Your task to perform on an android device: Open display settings Image 0: 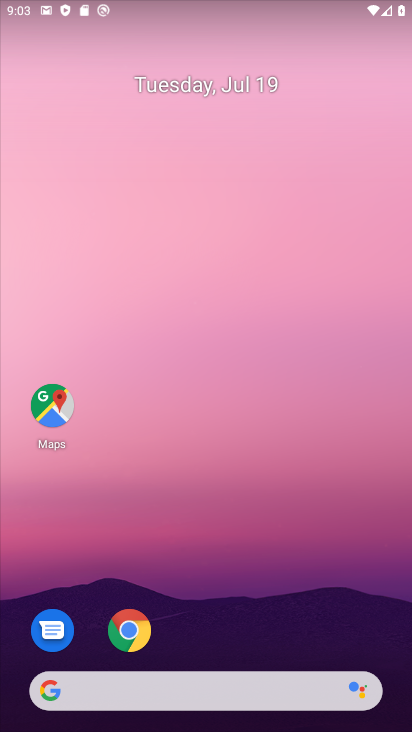
Step 0: drag from (105, 604) to (258, 125)
Your task to perform on an android device: Open display settings Image 1: 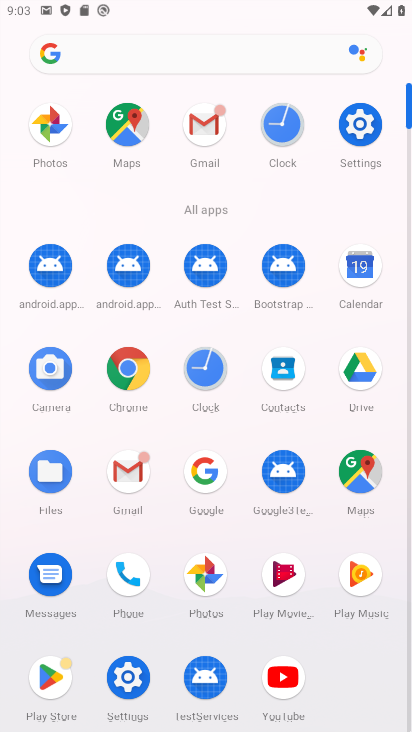
Step 1: click (122, 680)
Your task to perform on an android device: Open display settings Image 2: 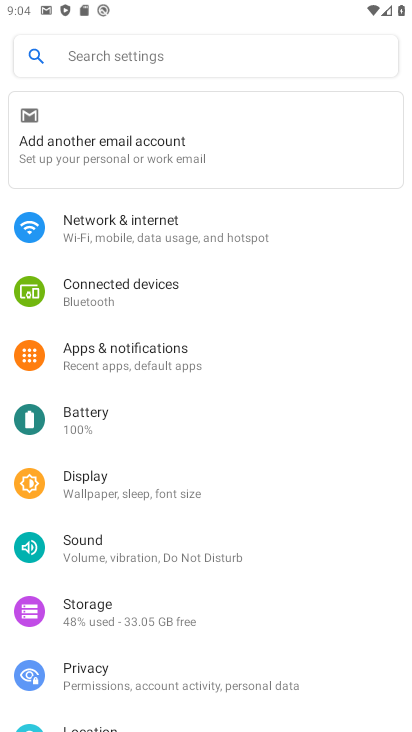
Step 2: click (130, 493)
Your task to perform on an android device: Open display settings Image 3: 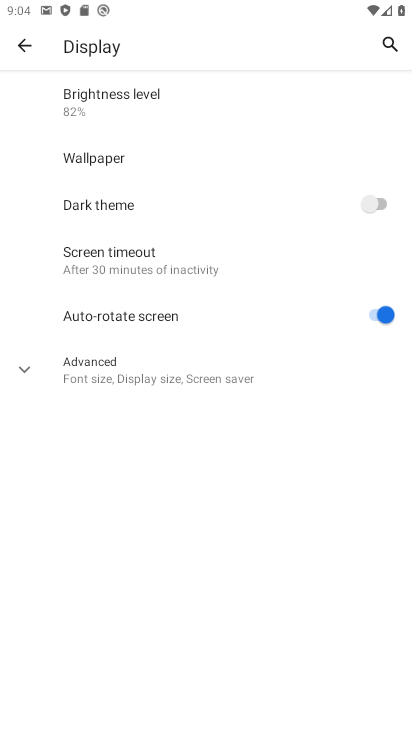
Step 3: task complete